Your task to perform on an android device: What's the weather? Image 0: 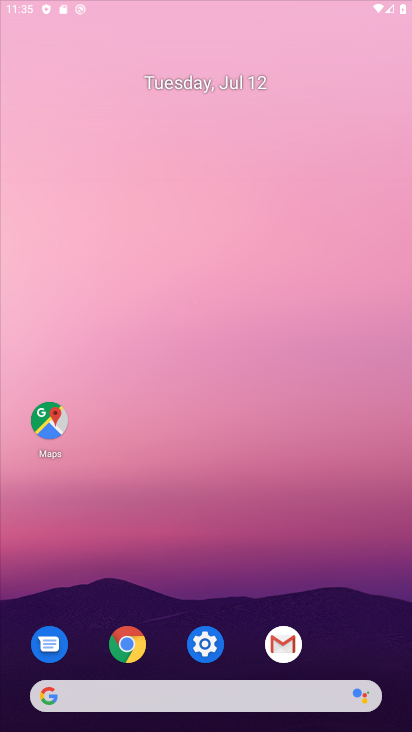
Step 0: press home button
Your task to perform on an android device: What's the weather? Image 1: 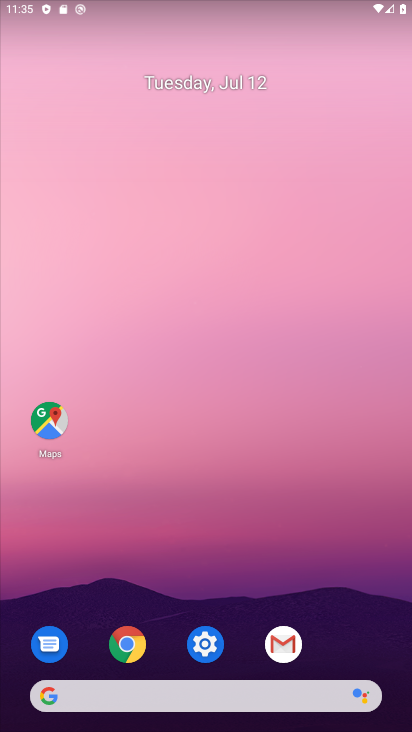
Step 1: click (159, 702)
Your task to perform on an android device: What's the weather? Image 2: 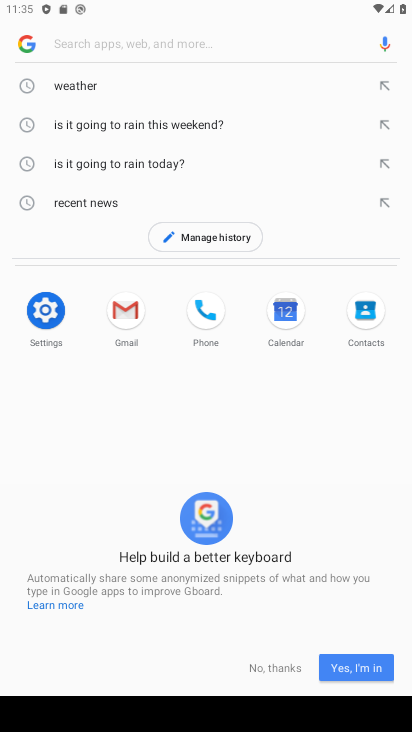
Step 2: click (261, 675)
Your task to perform on an android device: What's the weather? Image 3: 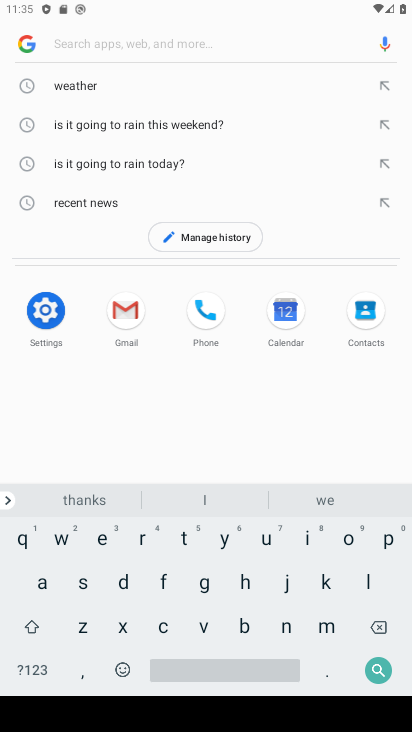
Step 3: click (83, 90)
Your task to perform on an android device: What's the weather? Image 4: 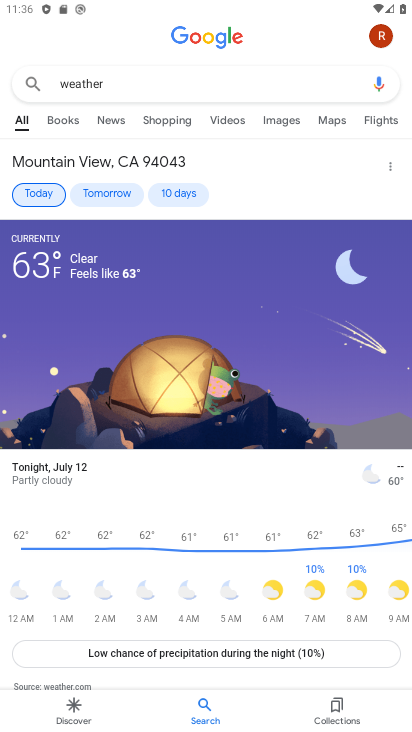
Step 4: task complete